Your task to perform on an android device: Open Yahoo.com Image 0: 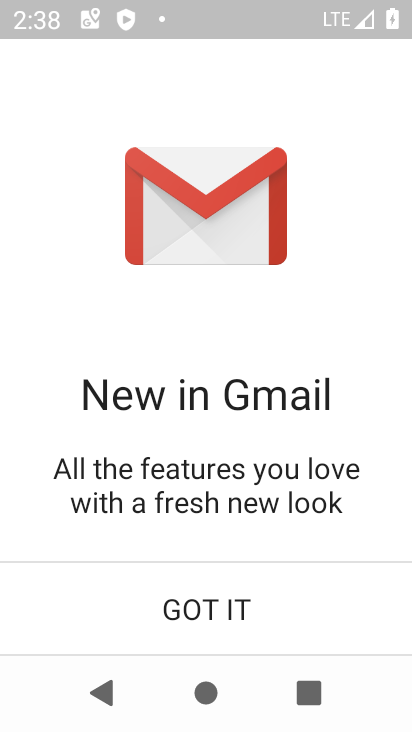
Step 0: press home button
Your task to perform on an android device: Open Yahoo.com Image 1: 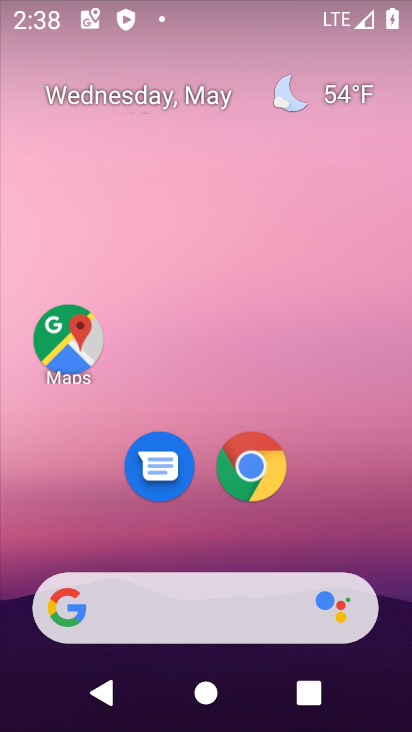
Step 1: click (242, 452)
Your task to perform on an android device: Open Yahoo.com Image 2: 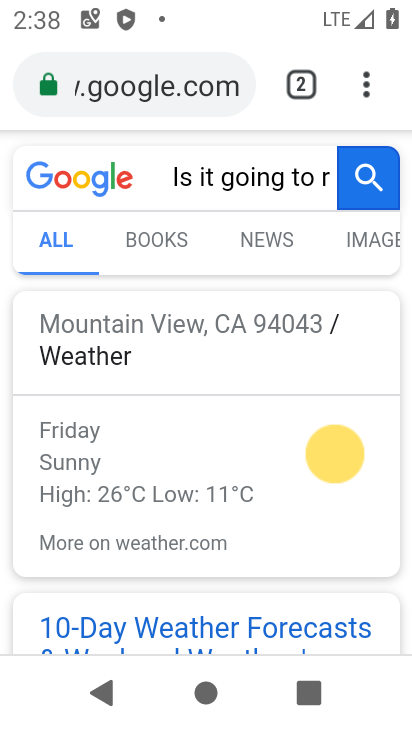
Step 2: click (301, 99)
Your task to perform on an android device: Open Yahoo.com Image 3: 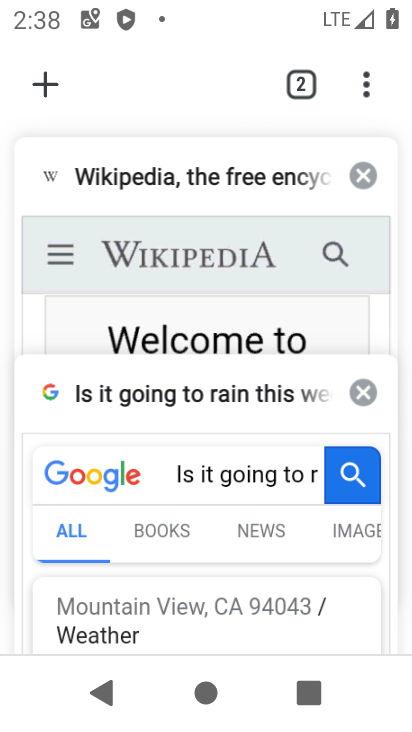
Step 3: click (41, 87)
Your task to perform on an android device: Open Yahoo.com Image 4: 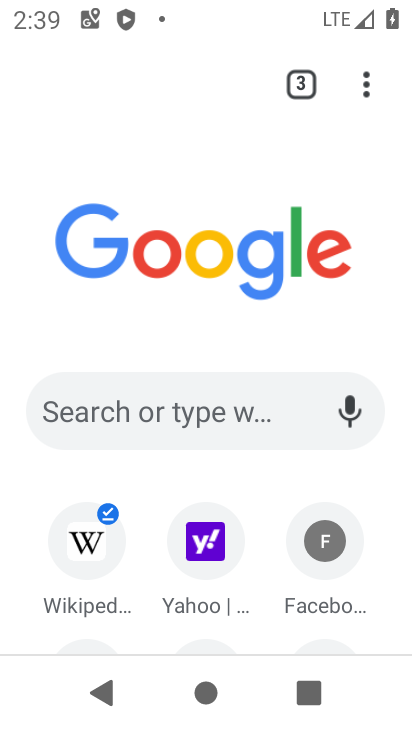
Step 4: click (205, 517)
Your task to perform on an android device: Open Yahoo.com Image 5: 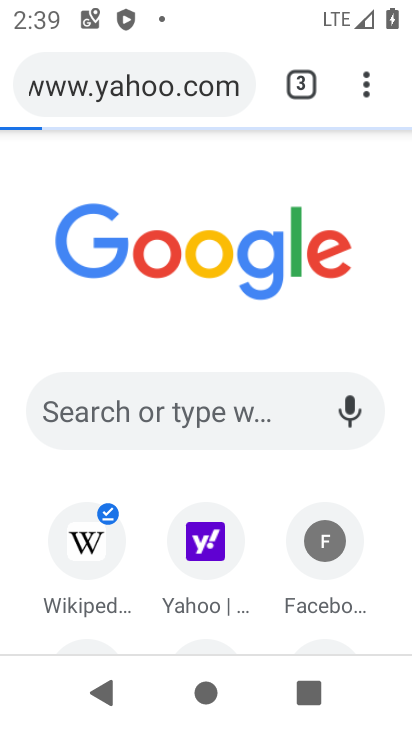
Step 5: task complete